Your task to perform on an android device: change the upload size in google photos Image 0: 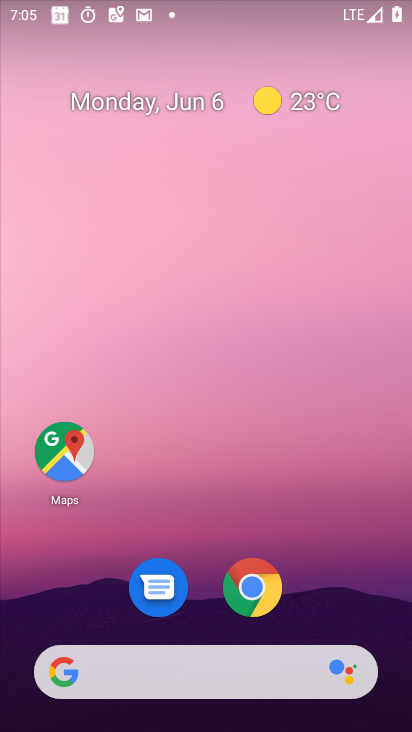
Step 0: drag from (388, 664) to (273, 133)
Your task to perform on an android device: change the upload size in google photos Image 1: 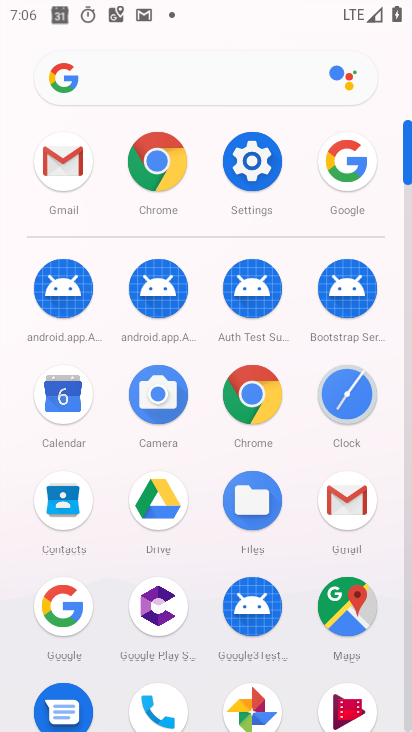
Step 1: click (242, 702)
Your task to perform on an android device: change the upload size in google photos Image 2: 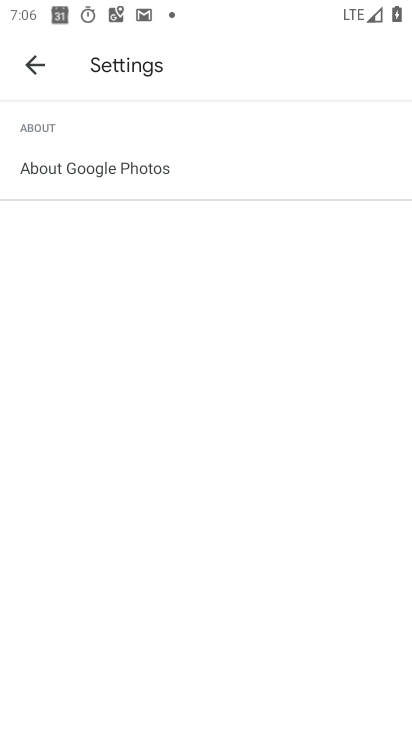
Step 2: press back button
Your task to perform on an android device: change the upload size in google photos Image 3: 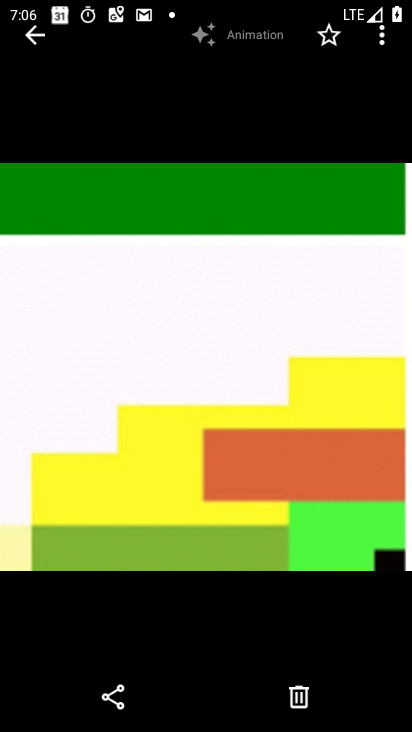
Step 3: press back button
Your task to perform on an android device: change the upload size in google photos Image 4: 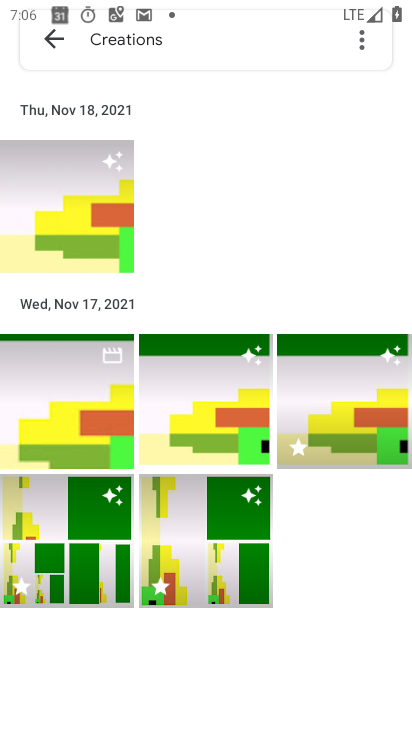
Step 4: press back button
Your task to perform on an android device: change the upload size in google photos Image 5: 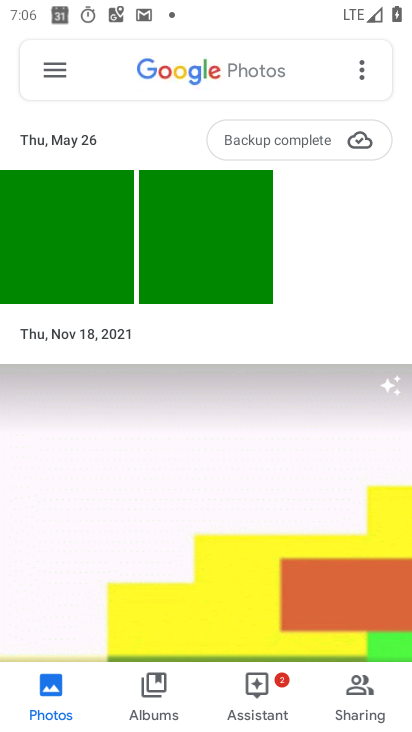
Step 5: click (58, 64)
Your task to perform on an android device: change the upload size in google photos Image 6: 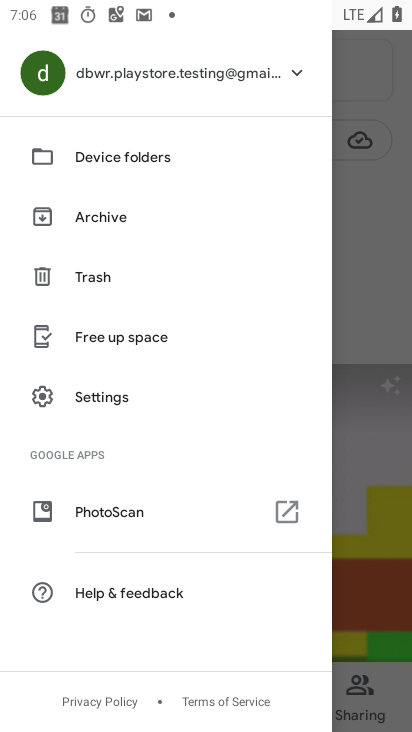
Step 6: drag from (107, 589) to (137, 126)
Your task to perform on an android device: change the upload size in google photos Image 7: 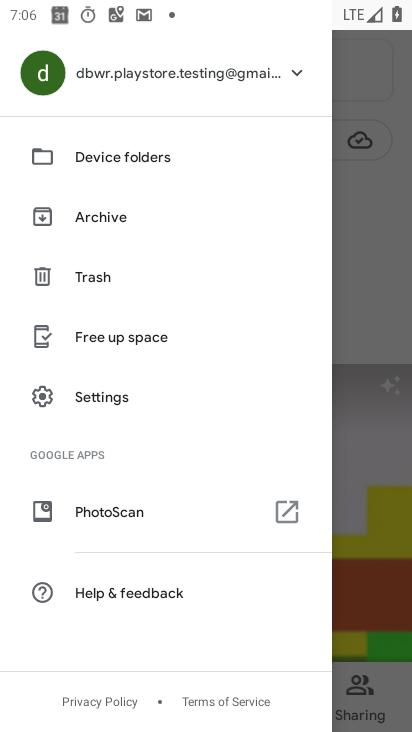
Step 7: click (68, 385)
Your task to perform on an android device: change the upload size in google photos Image 8: 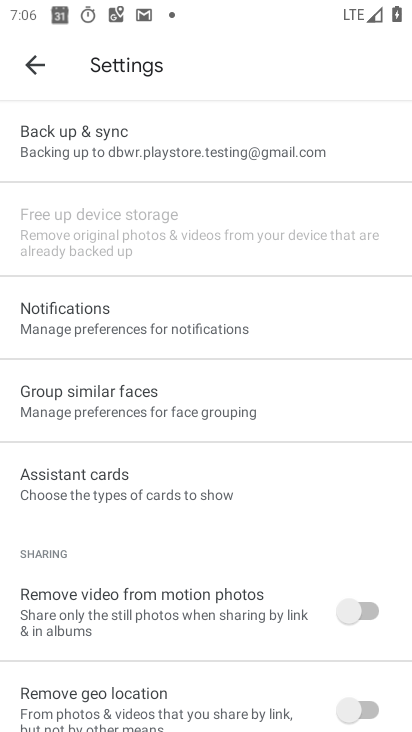
Step 8: click (169, 183)
Your task to perform on an android device: change the upload size in google photos Image 9: 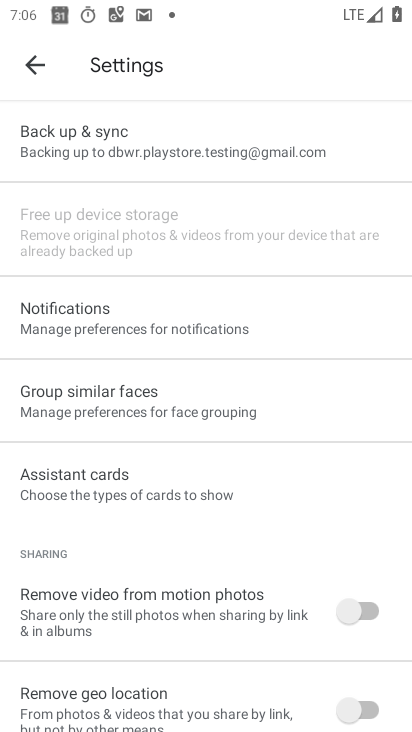
Step 9: click (173, 152)
Your task to perform on an android device: change the upload size in google photos Image 10: 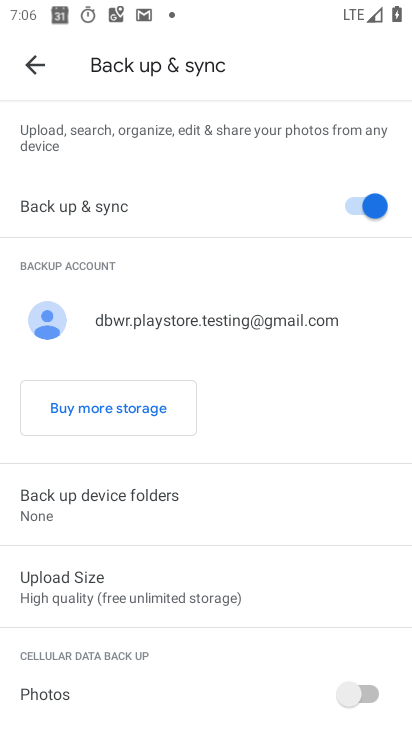
Step 10: click (183, 614)
Your task to perform on an android device: change the upload size in google photos Image 11: 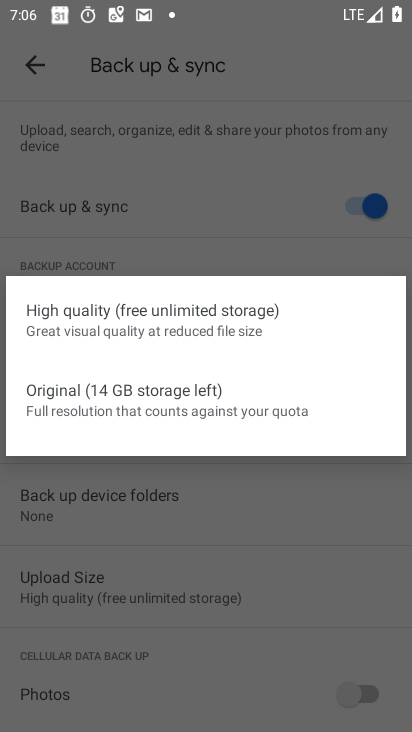
Step 11: click (89, 387)
Your task to perform on an android device: change the upload size in google photos Image 12: 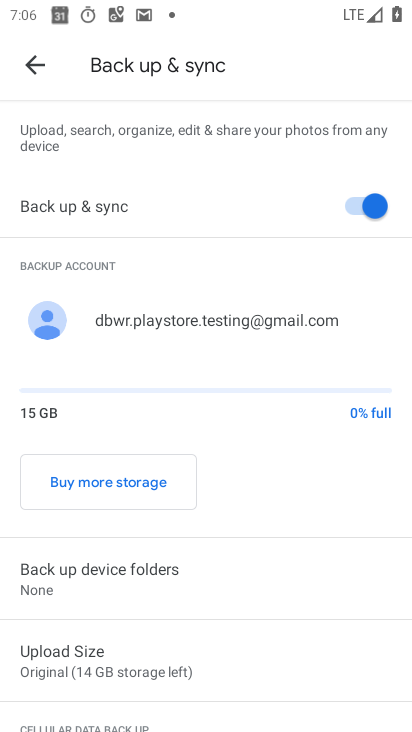
Step 12: task complete